Your task to perform on an android device: open wifi settings Image 0: 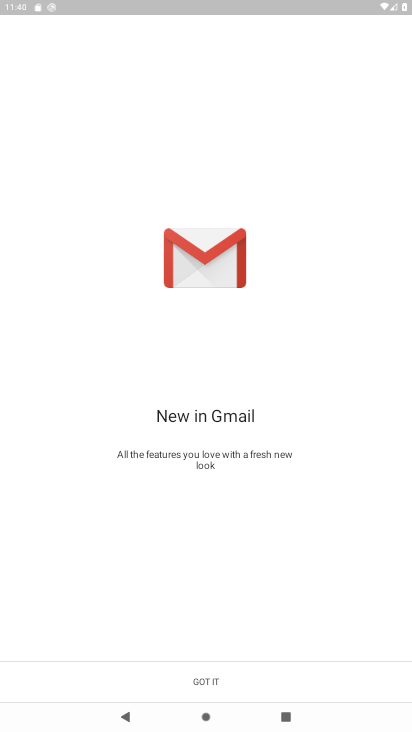
Step 0: press home button
Your task to perform on an android device: open wifi settings Image 1: 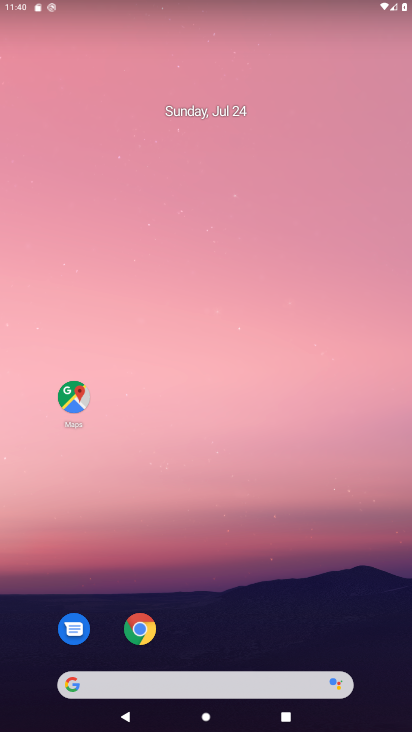
Step 1: drag from (226, 627) to (254, 146)
Your task to perform on an android device: open wifi settings Image 2: 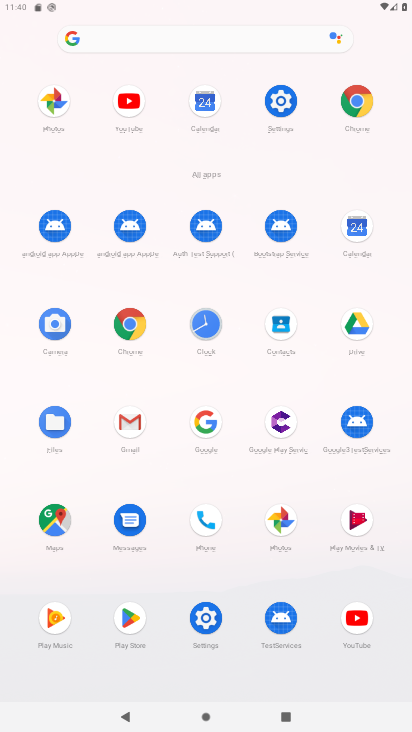
Step 2: click (196, 617)
Your task to perform on an android device: open wifi settings Image 3: 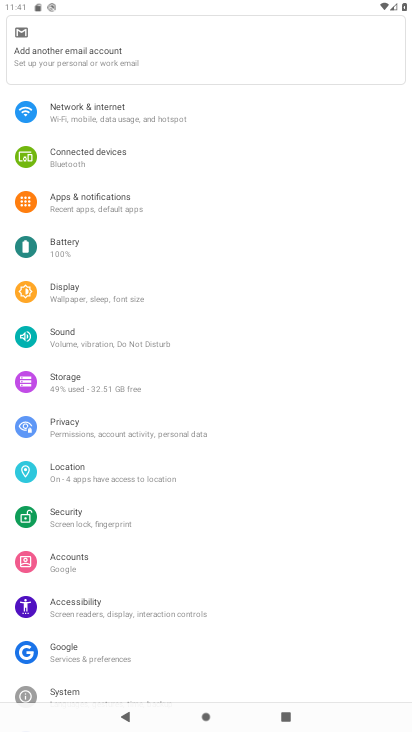
Step 3: click (112, 116)
Your task to perform on an android device: open wifi settings Image 4: 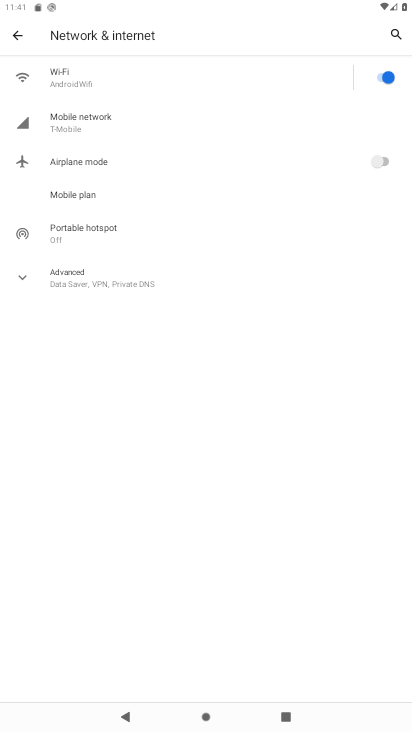
Step 4: click (98, 74)
Your task to perform on an android device: open wifi settings Image 5: 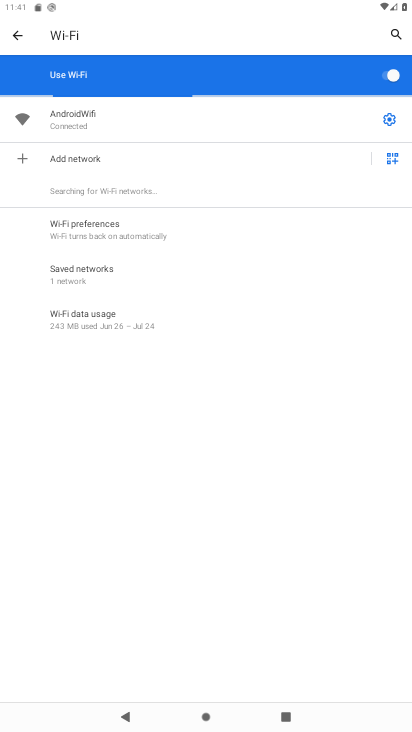
Step 5: task complete